Your task to perform on an android device: Open ESPN.com Image 0: 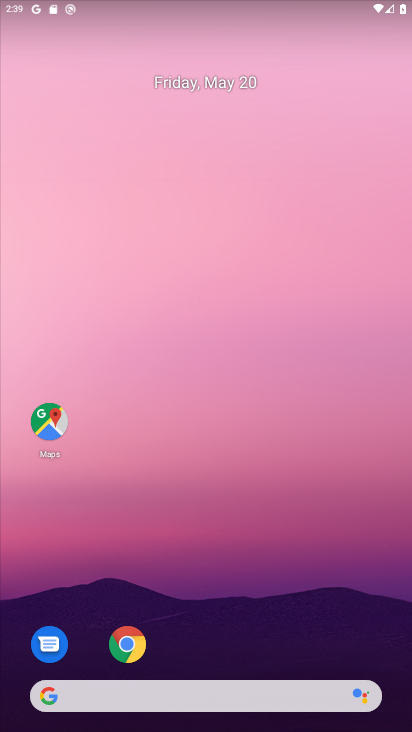
Step 0: drag from (255, 594) to (268, 183)
Your task to perform on an android device: Open ESPN.com Image 1: 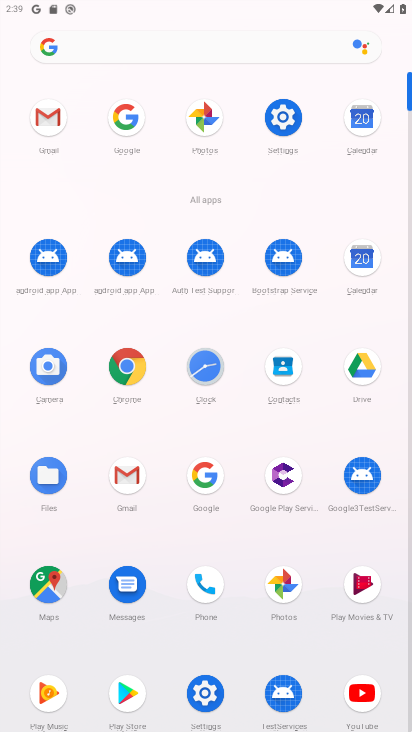
Step 1: click (203, 483)
Your task to perform on an android device: Open ESPN.com Image 2: 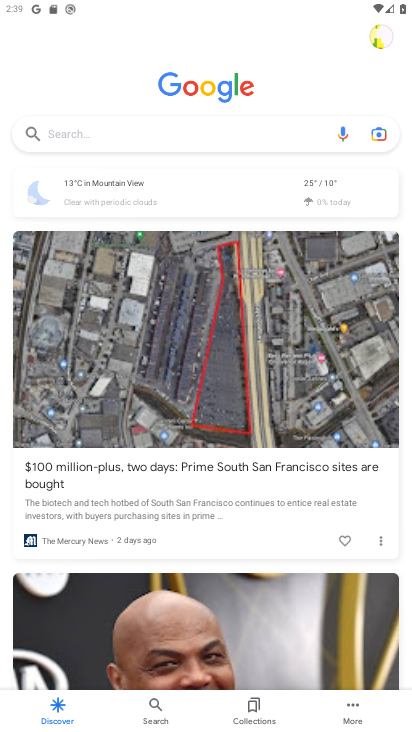
Step 2: click (186, 135)
Your task to perform on an android device: Open ESPN.com Image 3: 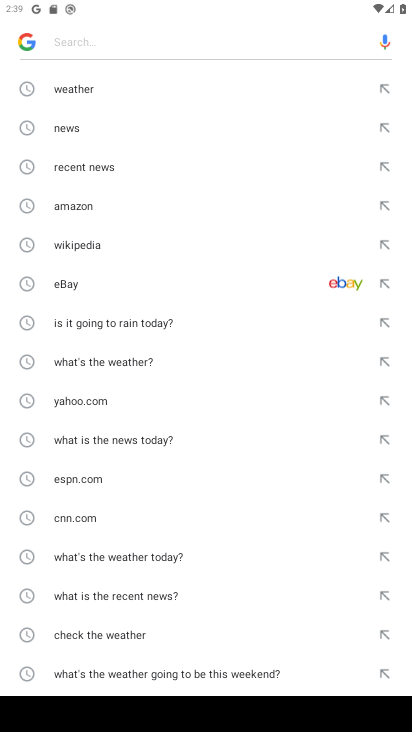
Step 3: click (109, 482)
Your task to perform on an android device: Open ESPN.com Image 4: 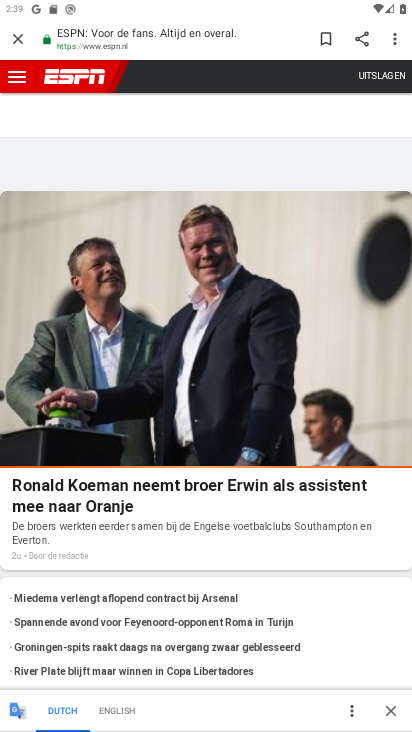
Step 4: task complete